Your task to perform on an android device: Open notification settings Image 0: 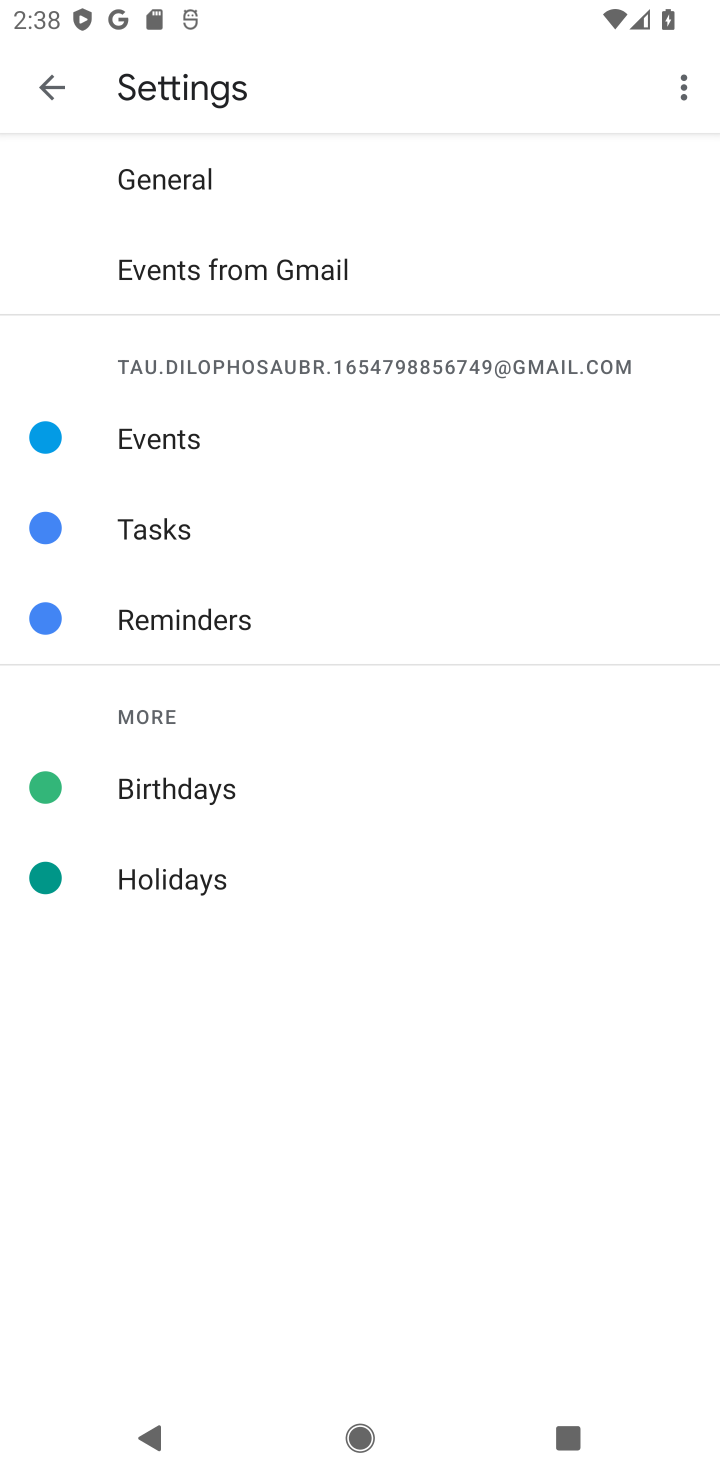
Step 0: press home button
Your task to perform on an android device: Open notification settings Image 1: 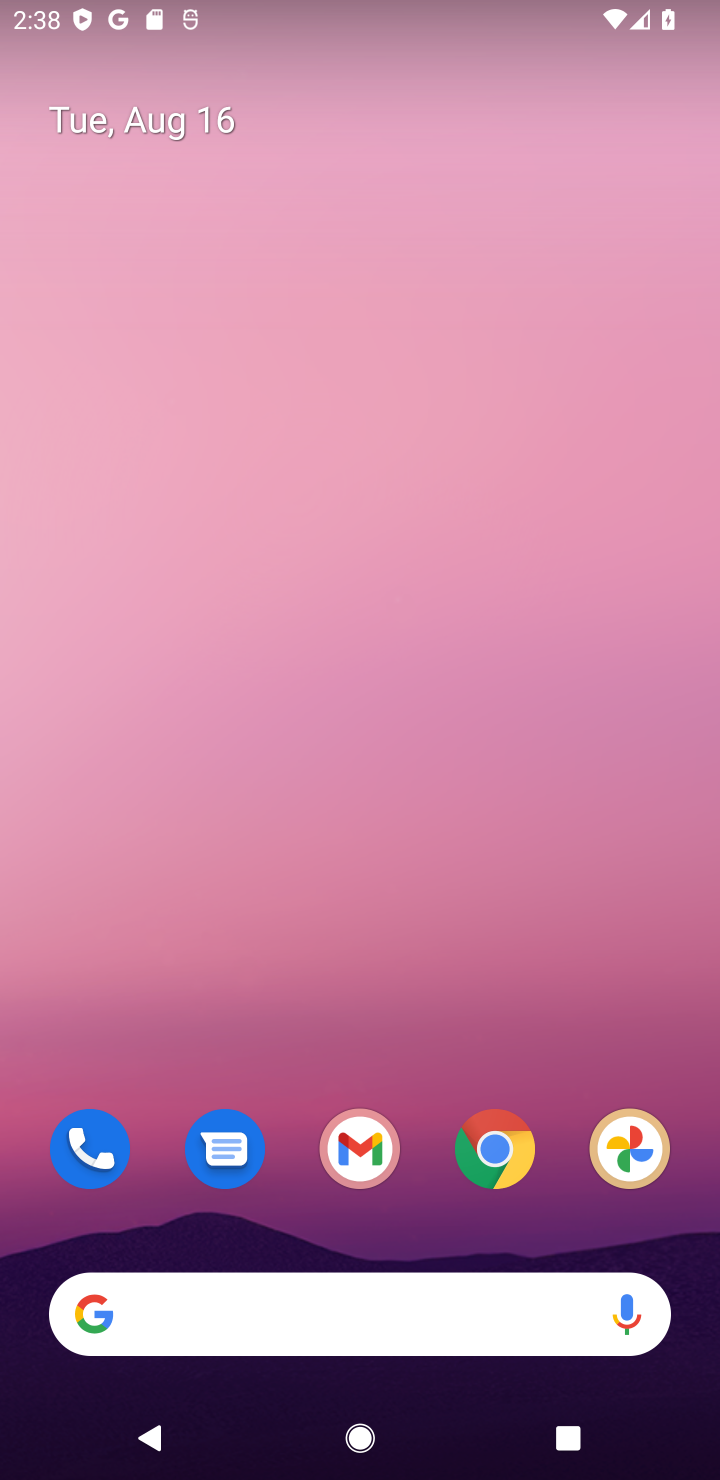
Step 1: drag from (399, 997) to (376, 1)
Your task to perform on an android device: Open notification settings Image 2: 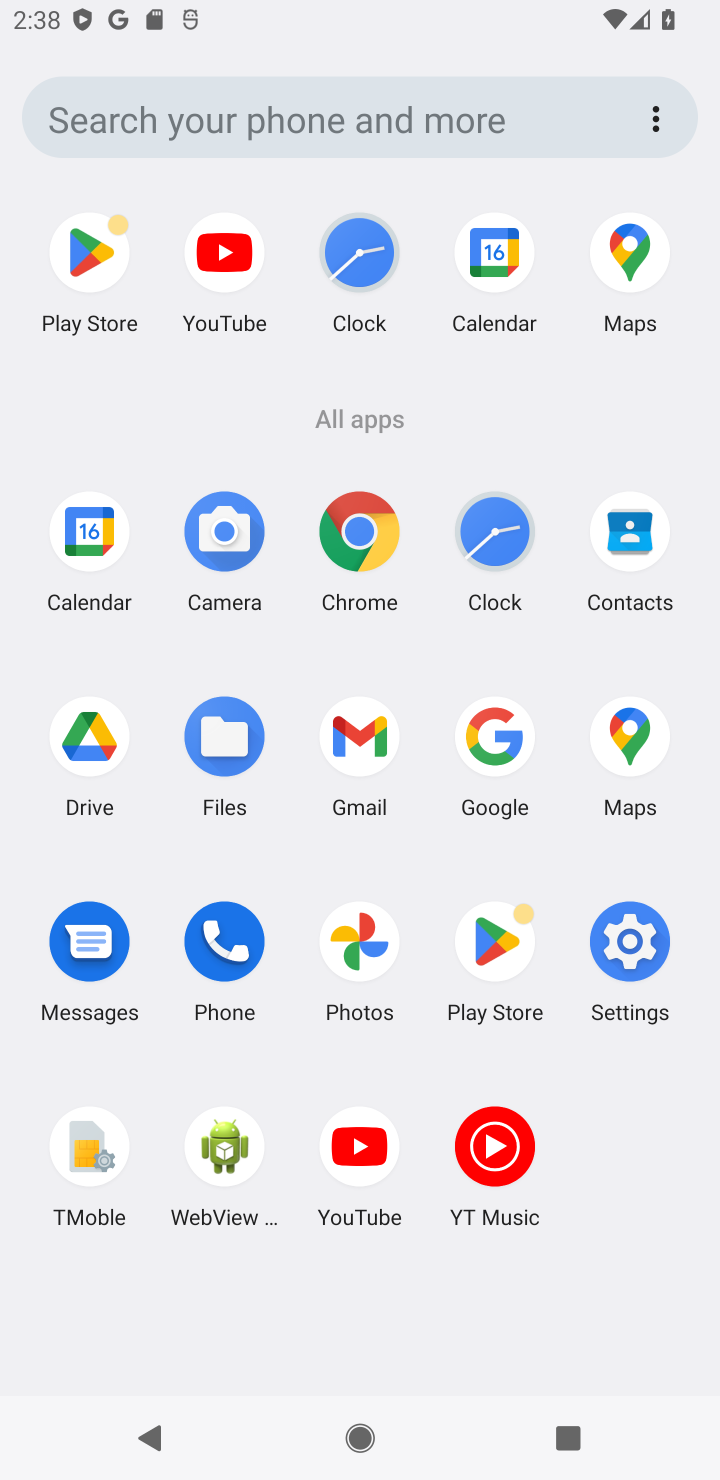
Step 2: click (632, 930)
Your task to perform on an android device: Open notification settings Image 3: 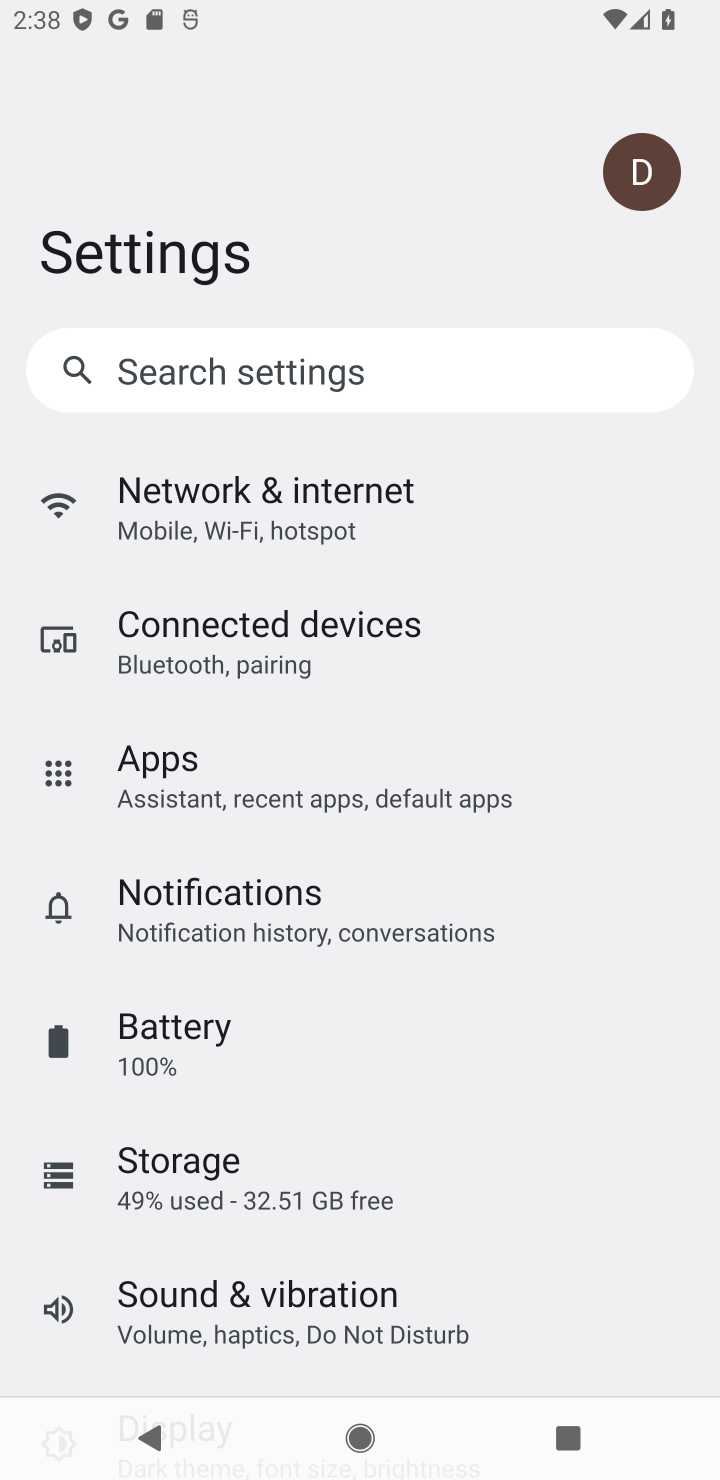
Step 3: click (356, 901)
Your task to perform on an android device: Open notification settings Image 4: 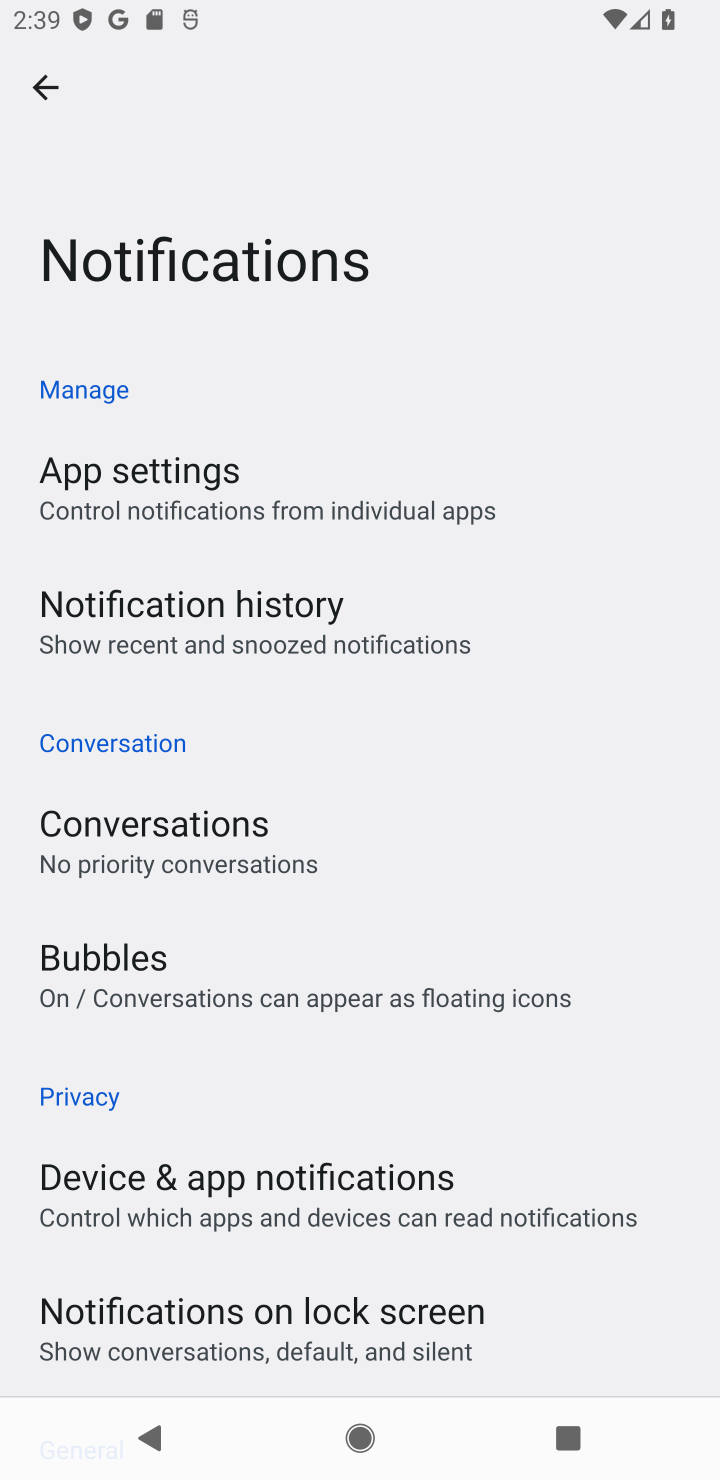
Step 4: task complete